Your task to perform on an android device: Go to Yahoo.com Image 0: 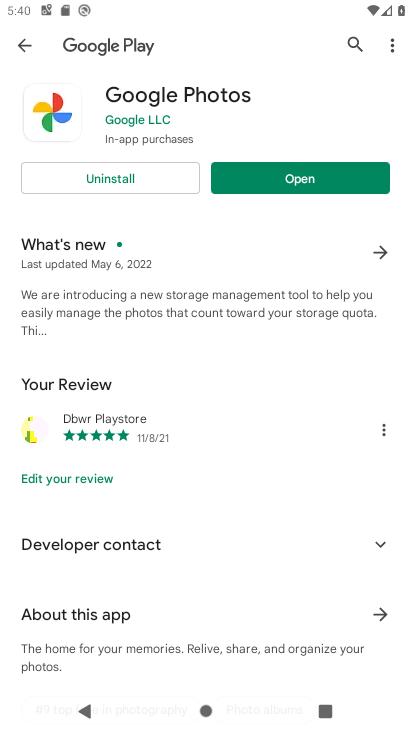
Step 0: drag from (268, 528) to (211, 51)
Your task to perform on an android device: Go to Yahoo.com Image 1: 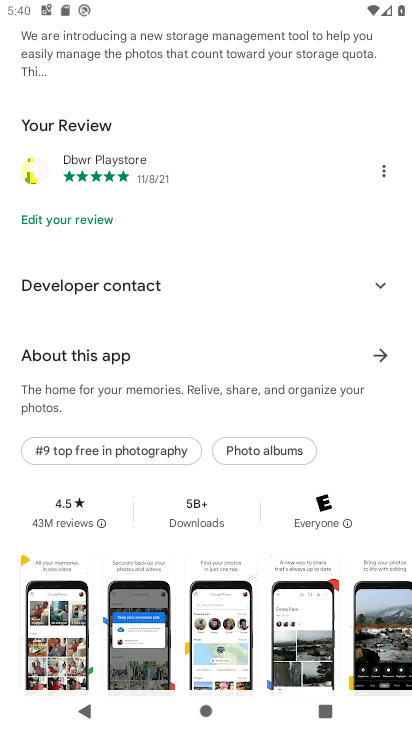
Step 1: press home button
Your task to perform on an android device: Go to Yahoo.com Image 2: 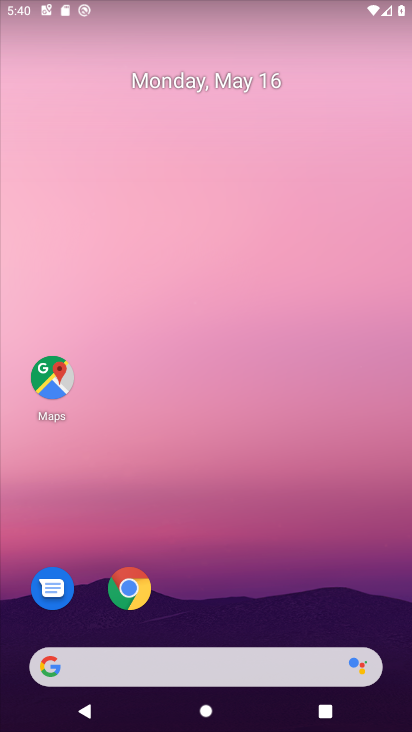
Step 2: click (143, 582)
Your task to perform on an android device: Go to Yahoo.com Image 3: 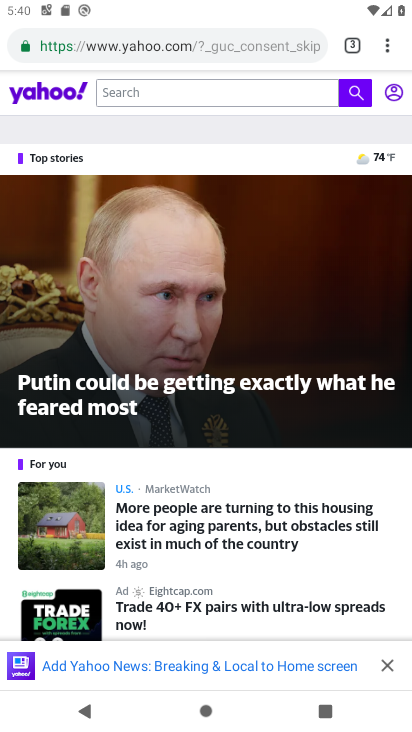
Step 3: task complete